Your task to perform on an android device: Search for Italian restaurants on Maps Image 0: 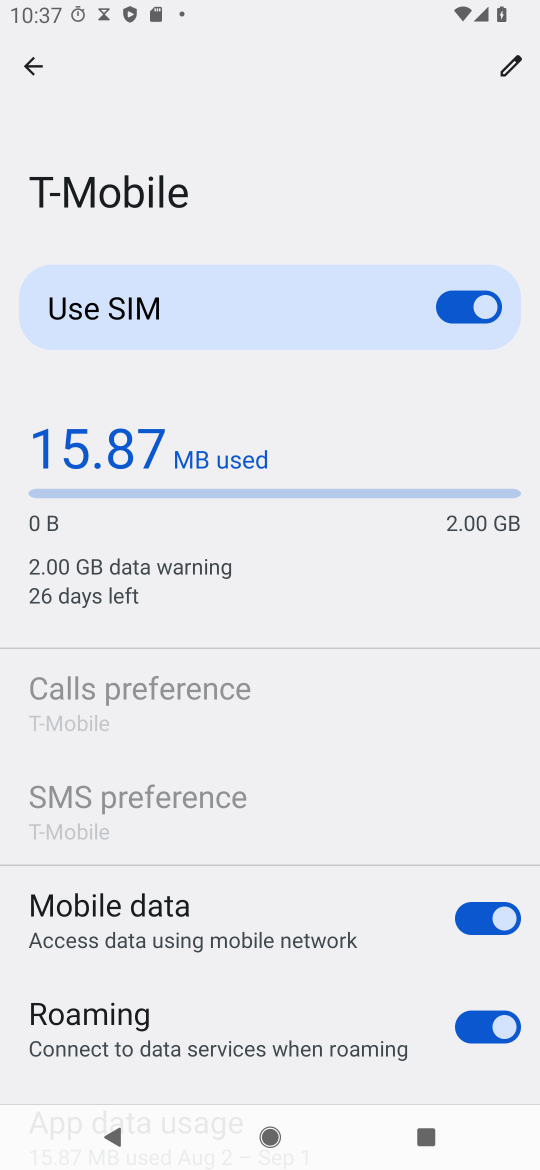
Step 0: press home button
Your task to perform on an android device: Search for Italian restaurants on Maps Image 1: 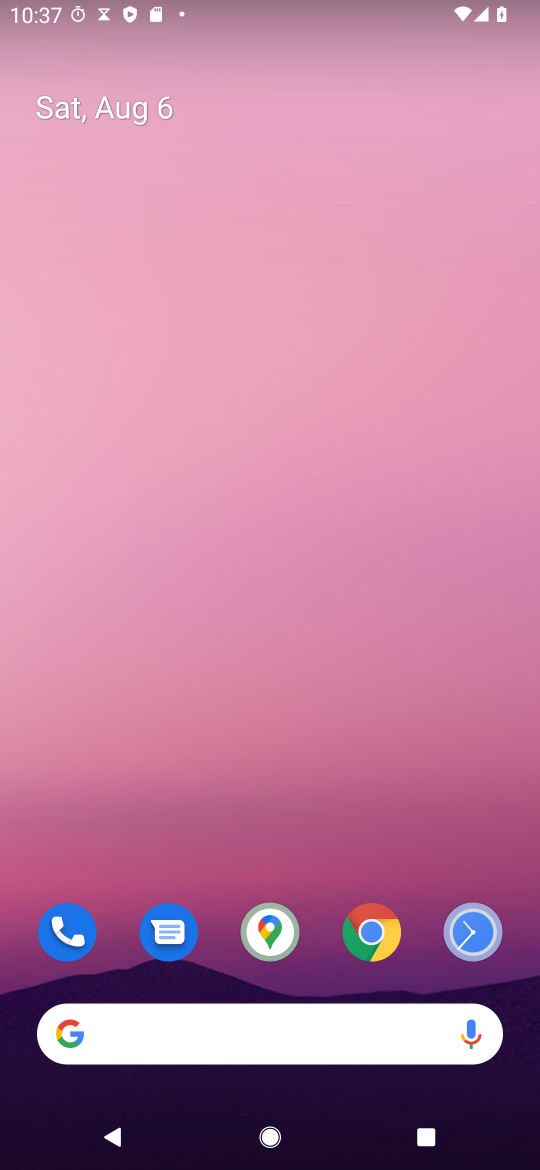
Step 1: drag from (190, 1052) to (184, 366)
Your task to perform on an android device: Search for Italian restaurants on Maps Image 2: 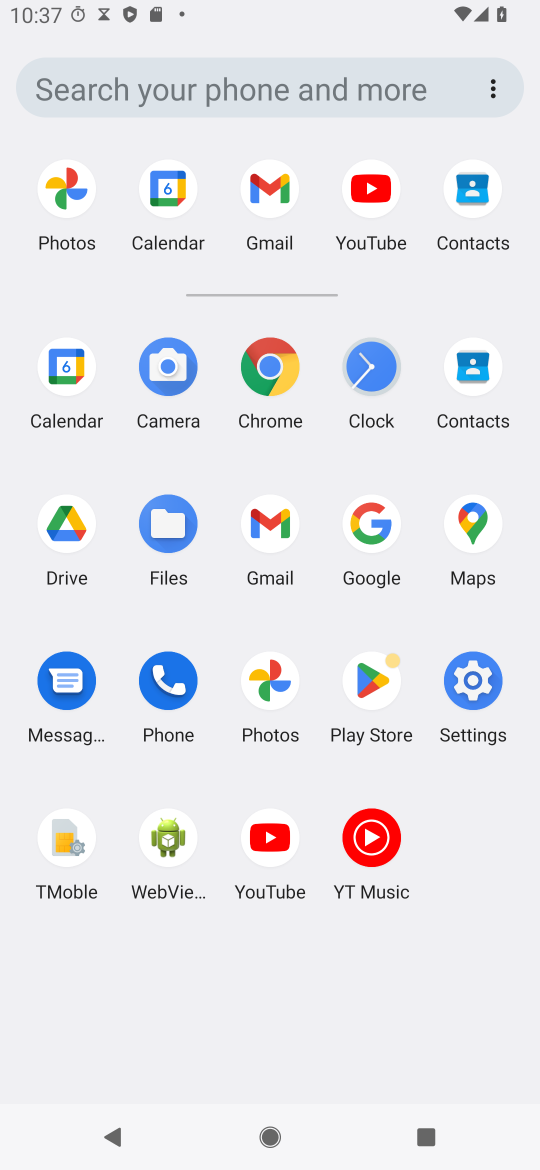
Step 2: click (475, 521)
Your task to perform on an android device: Search for Italian restaurants on Maps Image 3: 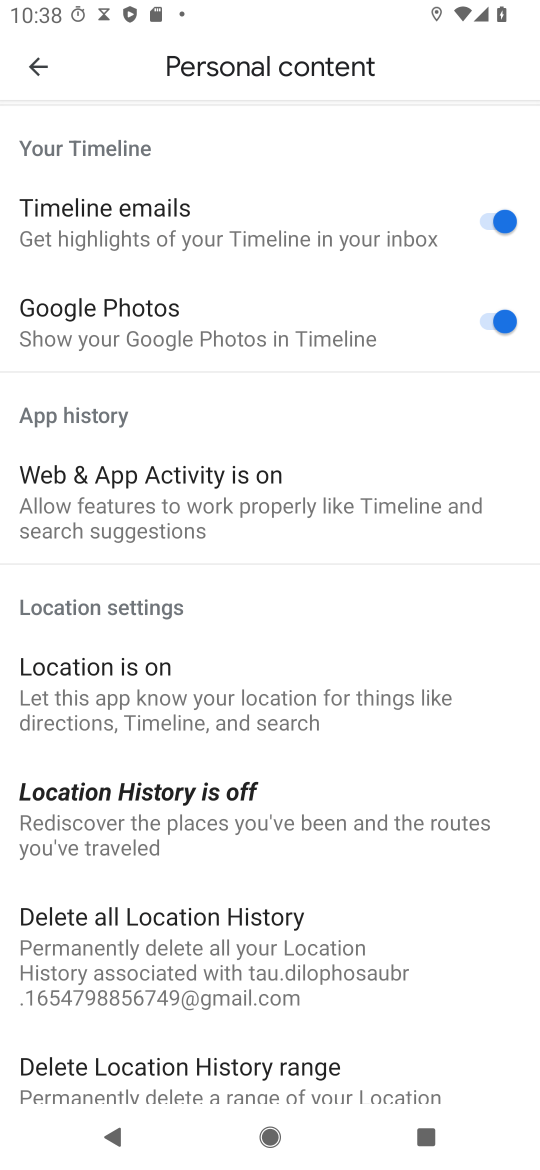
Step 3: press back button
Your task to perform on an android device: Search for Italian restaurants on Maps Image 4: 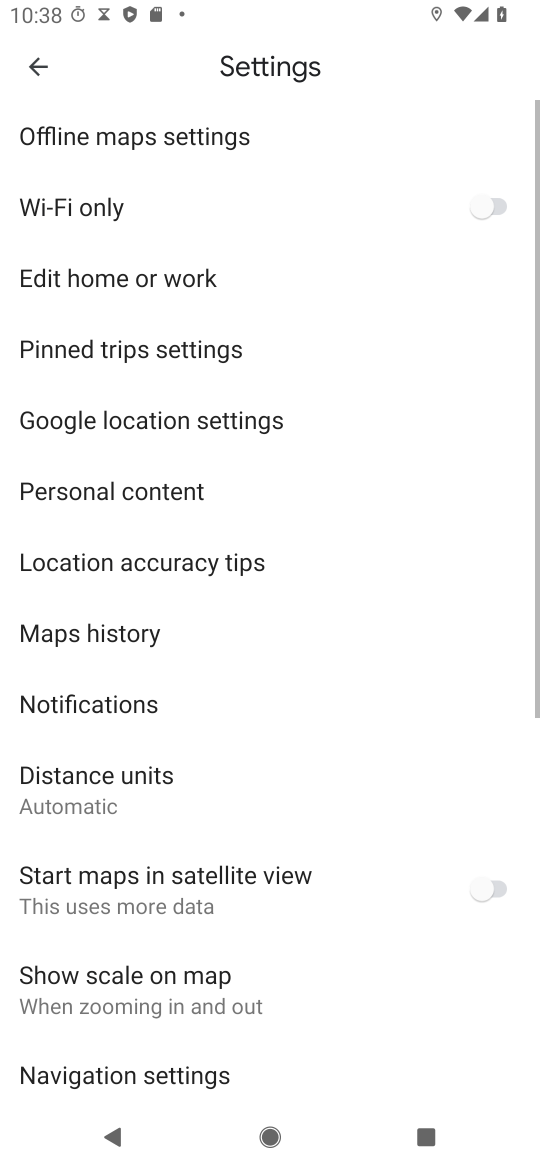
Step 4: press back button
Your task to perform on an android device: Search for Italian restaurants on Maps Image 5: 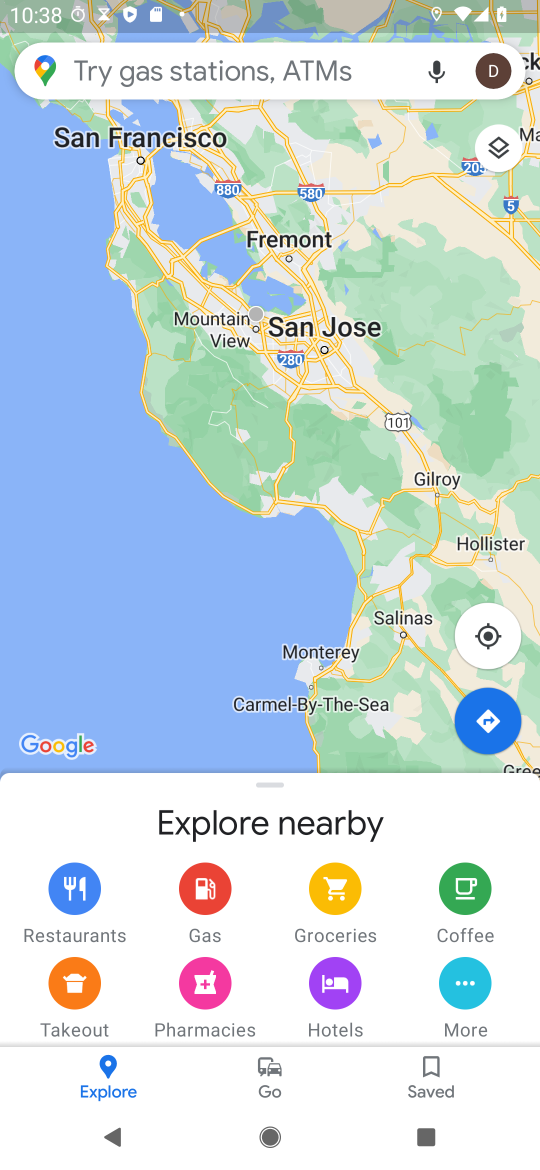
Step 5: click (253, 68)
Your task to perform on an android device: Search for Italian restaurants on Maps Image 6: 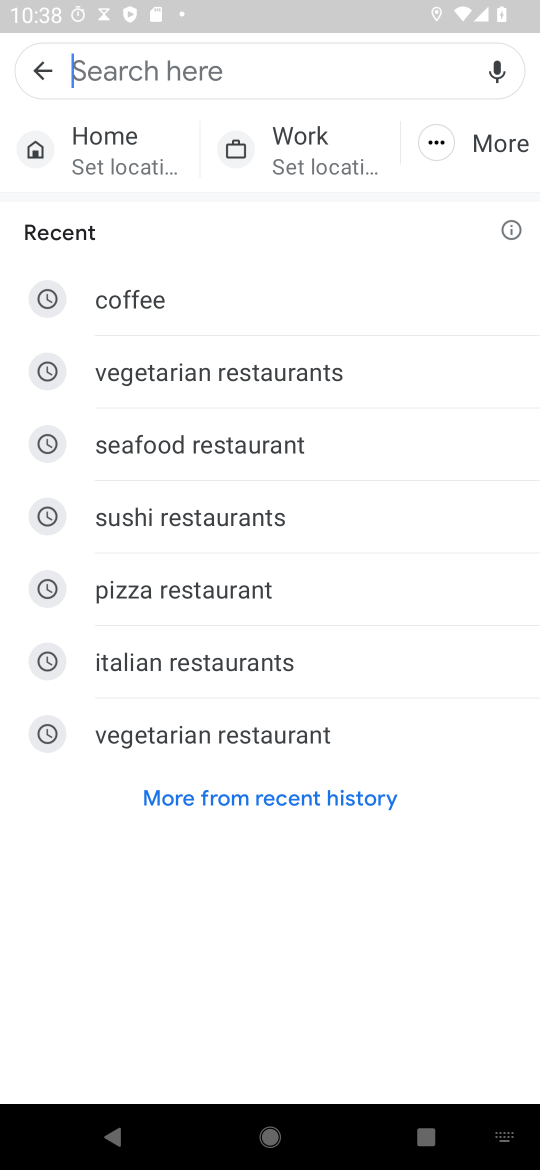
Step 6: click (252, 670)
Your task to perform on an android device: Search for Italian restaurants on Maps Image 7: 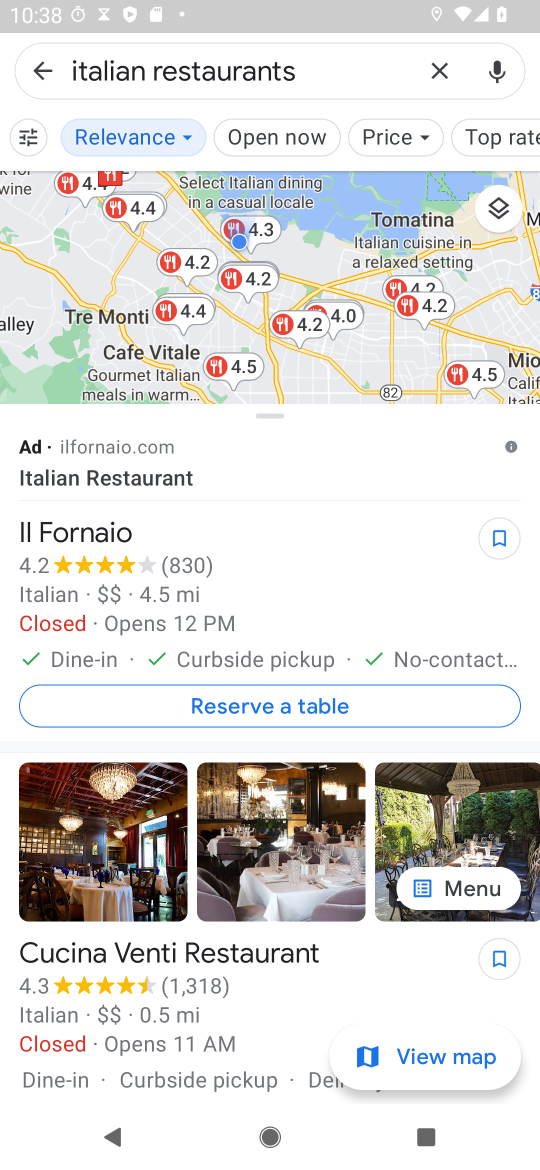
Step 7: task complete